Your task to perform on an android device: Open the calendar and show me this week's events Image 0: 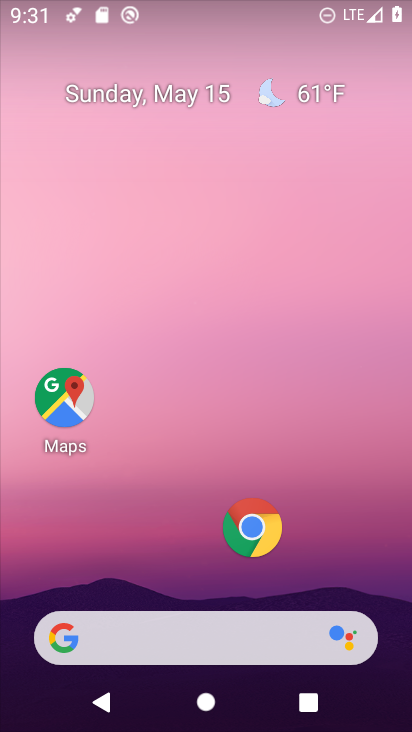
Step 0: press home button
Your task to perform on an android device: Open the calendar and show me this week's events Image 1: 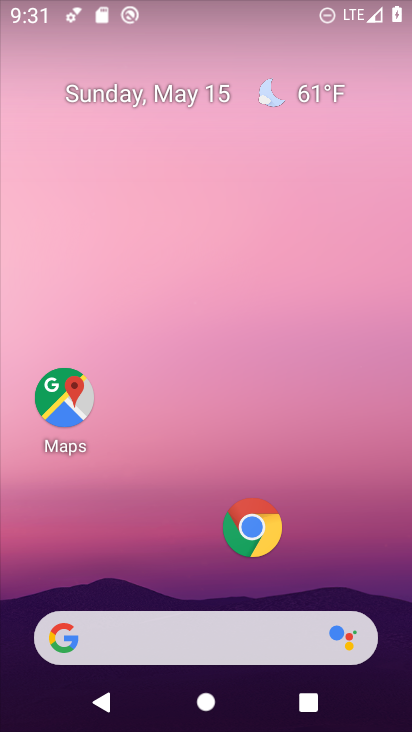
Step 1: drag from (199, 579) to (207, 137)
Your task to perform on an android device: Open the calendar and show me this week's events Image 2: 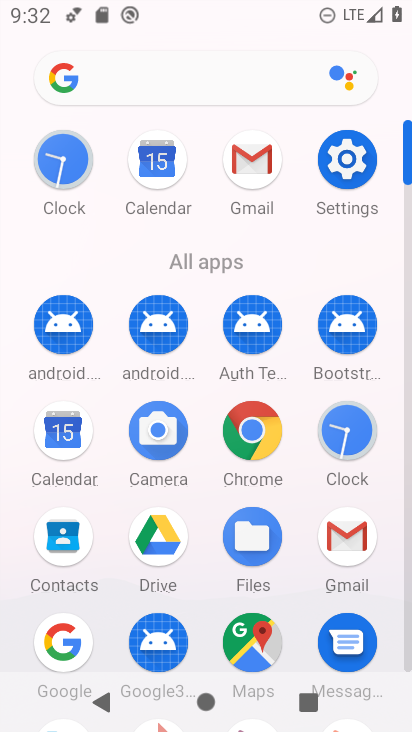
Step 2: click (60, 431)
Your task to perform on an android device: Open the calendar and show me this week's events Image 3: 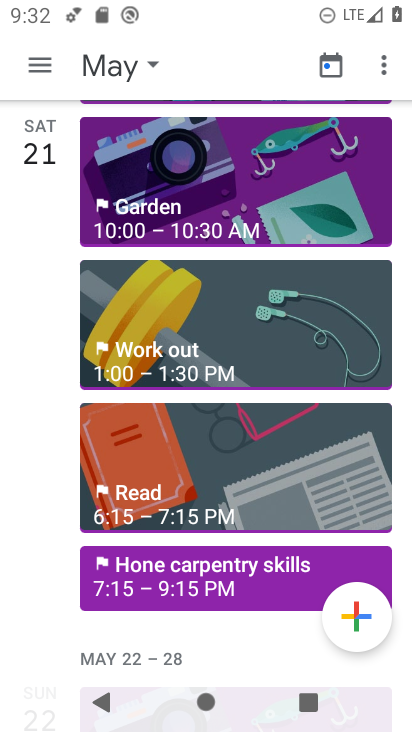
Step 3: click (40, 60)
Your task to perform on an android device: Open the calendar and show me this week's events Image 4: 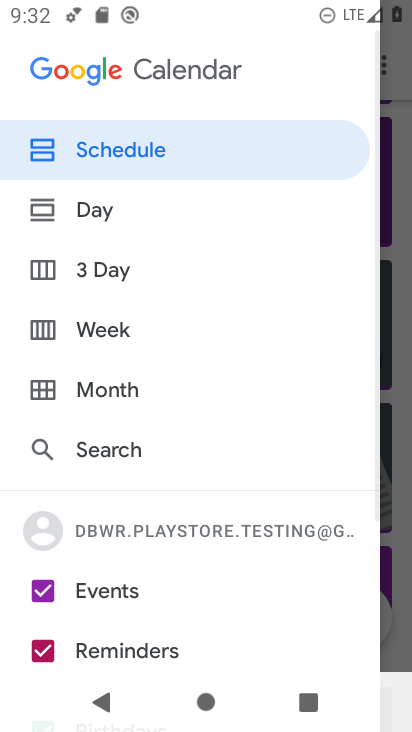
Step 4: click (44, 652)
Your task to perform on an android device: Open the calendar and show me this week's events Image 5: 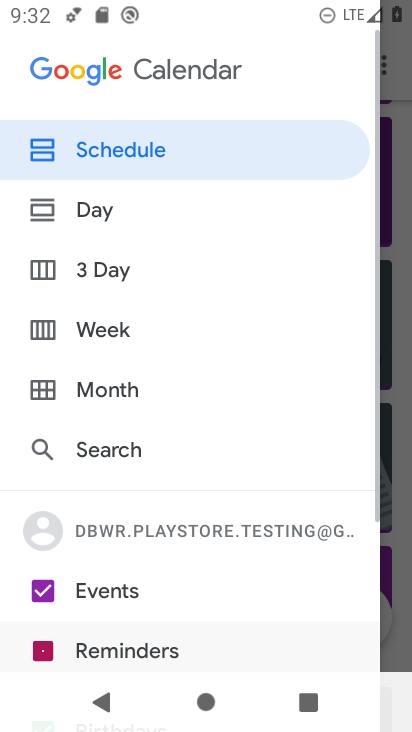
Step 5: drag from (207, 597) to (206, 214)
Your task to perform on an android device: Open the calendar and show me this week's events Image 6: 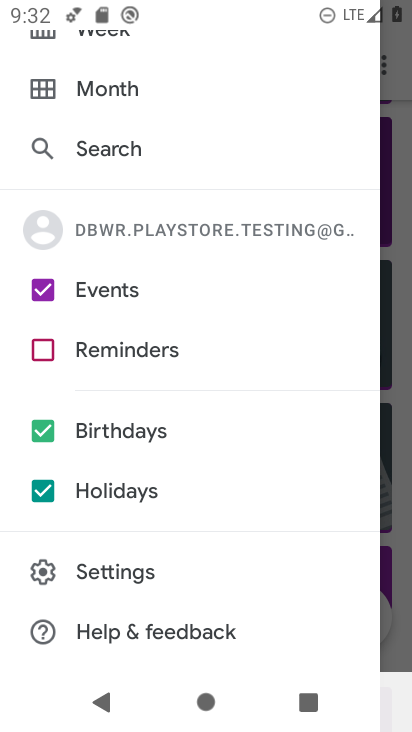
Step 6: click (37, 424)
Your task to perform on an android device: Open the calendar and show me this week's events Image 7: 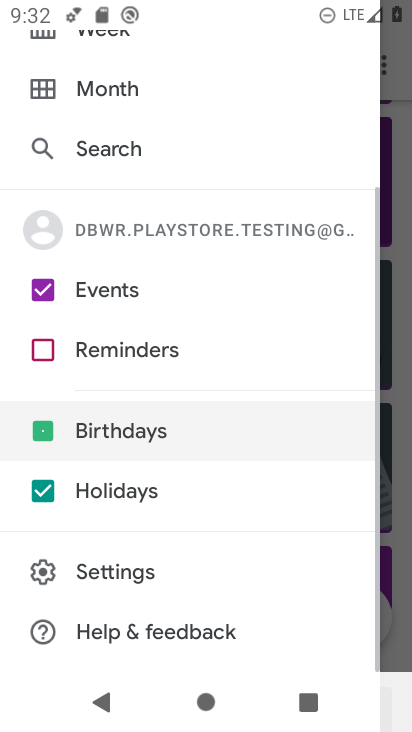
Step 7: click (46, 483)
Your task to perform on an android device: Open the calendar and show me this week's events Image 8: 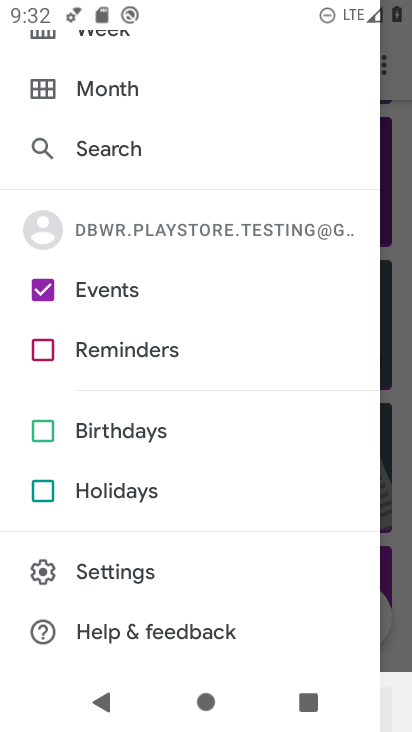
Step 8: drag from (135, 206) to (122, 578)
Your task to perform on an android device: Open the calendar and show me this week's events Image 9: 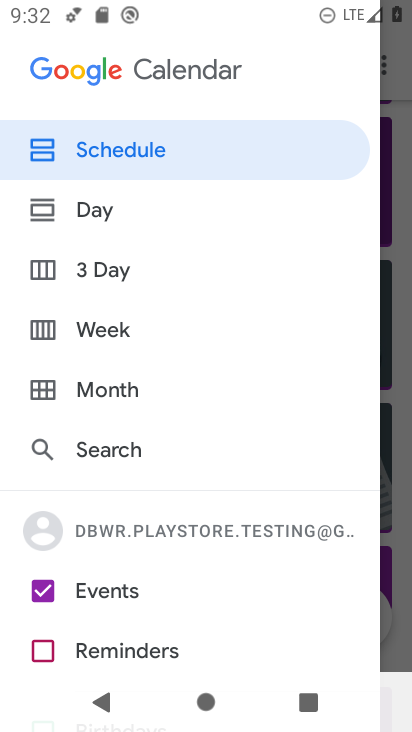
Step 9: click (113, 144)
Your task to perform on an android device: Open the calendar and show me this week's events Image 10: 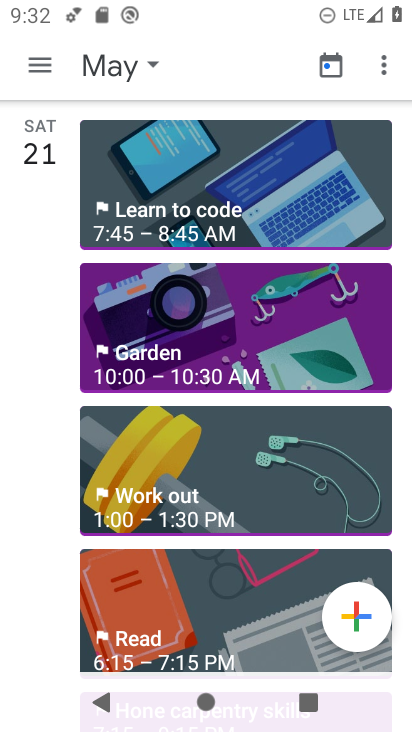
Step 10: task complete